Your task to perform on an android device: open sync settings in chrome Image 0: 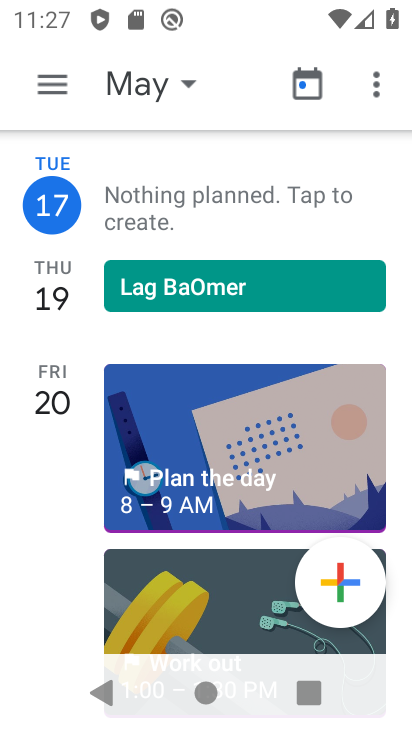
Step 0: press home button
Your task to perform on an android device: open sync settings in chrome Image 1: 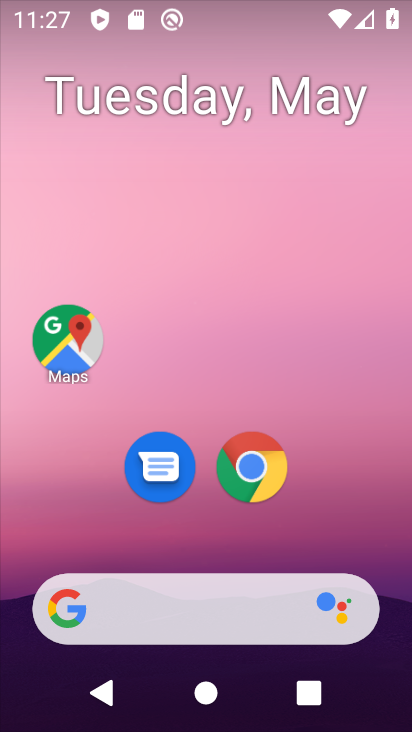
Step 1: click (247, 466)
Your task to perform on an android device: open sync settings in chrome Image 2: 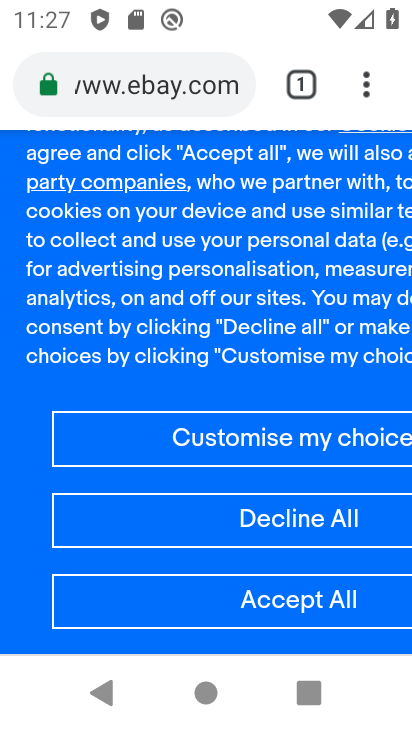
Step 2: click (368, 90)
Your task to perform on an android device: open sync settings in chrome Image 3: 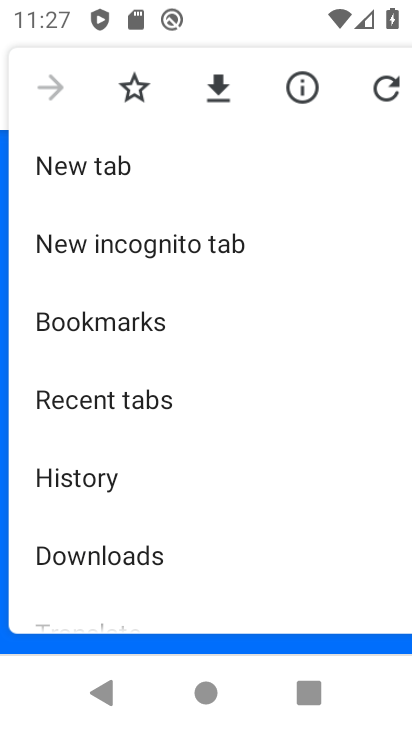
Step 3: drag from (171, 545) to (117, 197)
Your task to perform on an android device: open sync settings in chrome Image 4: 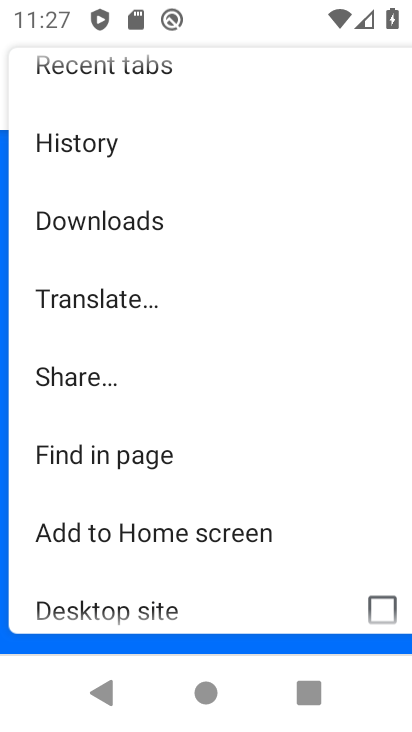
Step 4: drag from (89, 605) to (50, 65)
Your task to perform on an android device: open sync settings in chrome Image 5: 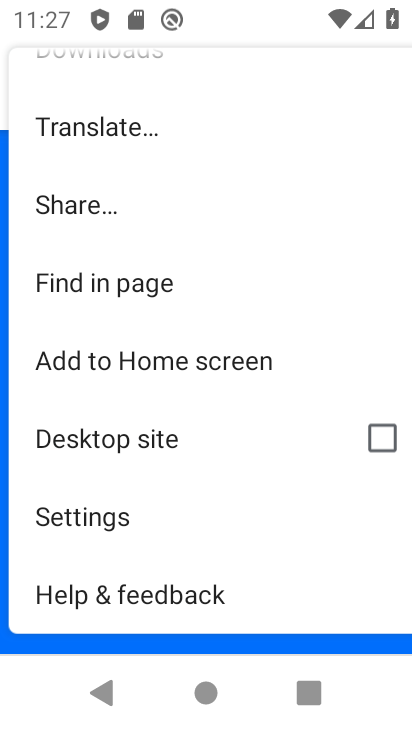
Step 5: click (83, 509)
Your task to perform on an android device: open sync settings in chrome Image 6: 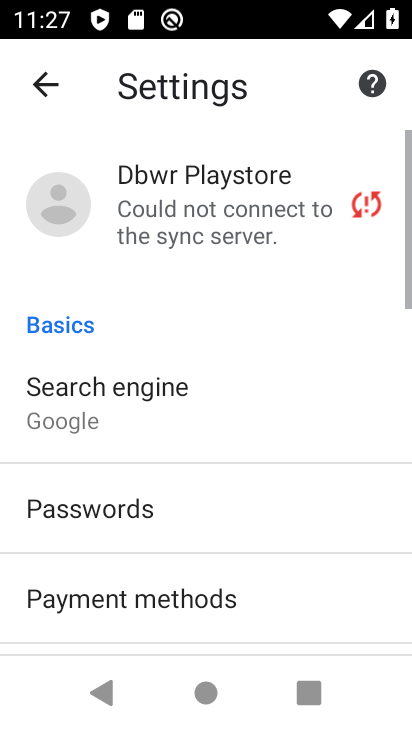
Step 6: drag from (82, 507) to (58, 339)
Your task to perform on an android device: open sync settings in chrome Image 7: 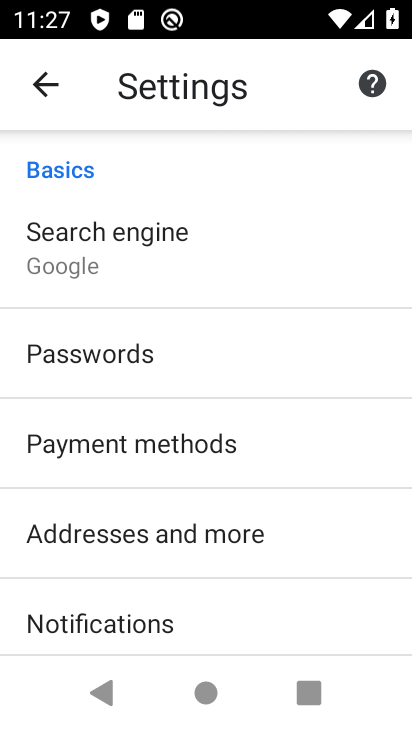
Step 7: click (110, 145)
Your task to perform on an android device: open sync settings in chrome Image 8: 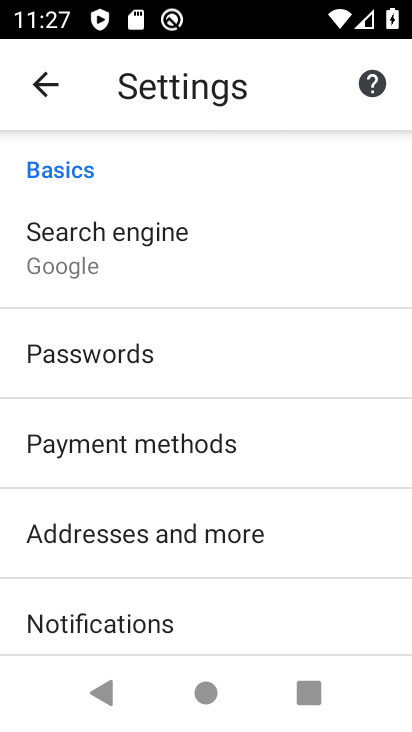
Step 8: drag from (107, 220) to (100, 435)
Your task to perform on an android device: open sync settings in chrome Image 9: 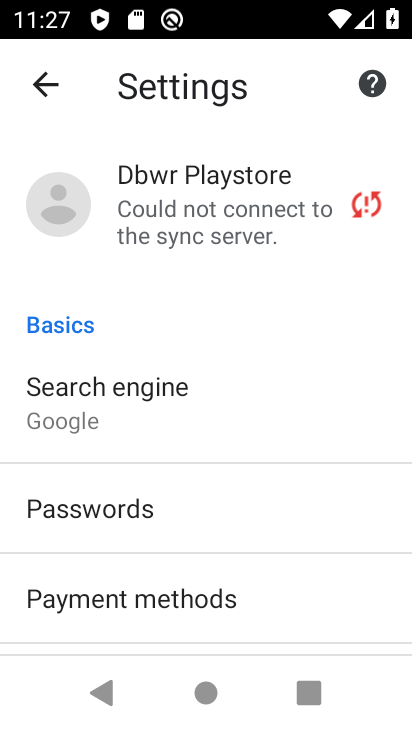
Step 9: click (113, 232)
Your task to perform on an android device: open sync settings in chrome Image 10: 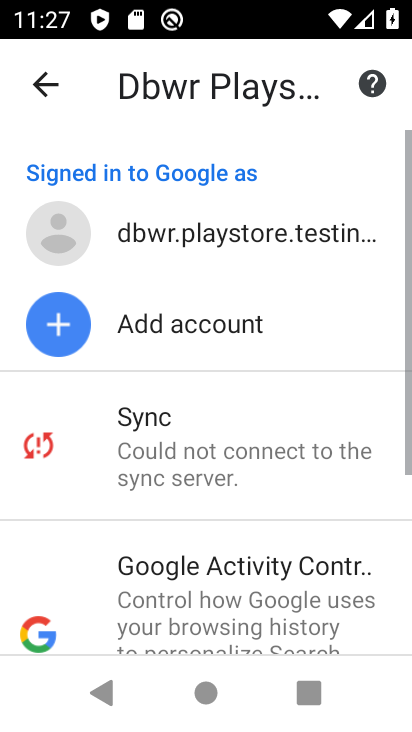
Step 10: click (140, 441)
Your task to perform on an android device: open sync settings in chrome Image 11: 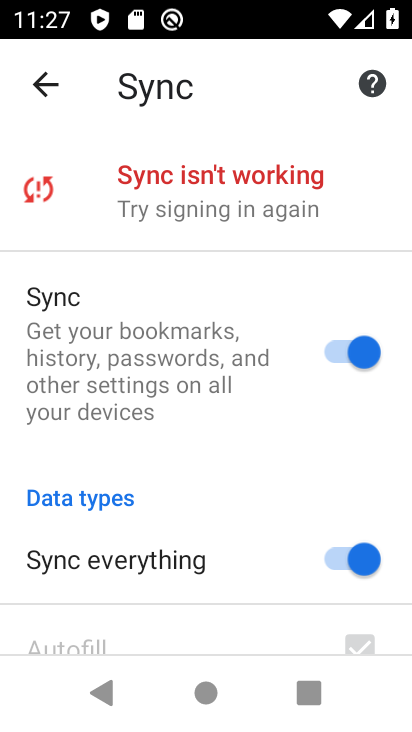
Step 11: task complete